Your task to perform on an android device: Open ESPN.com Image 0: 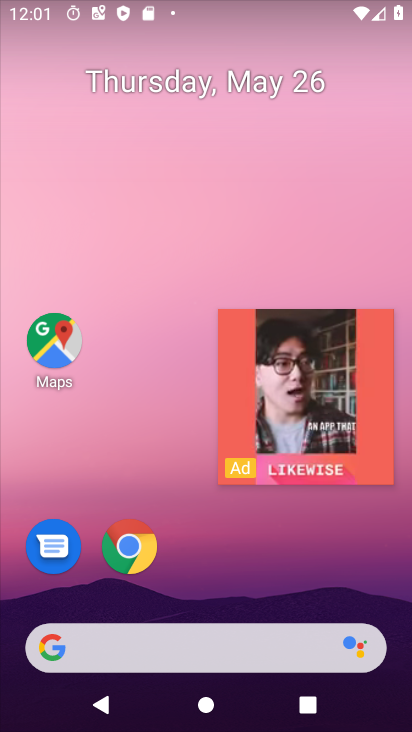
Step 0: click (133, 553)
Your task to perform on an android device: Open ESPN.com Image 1: 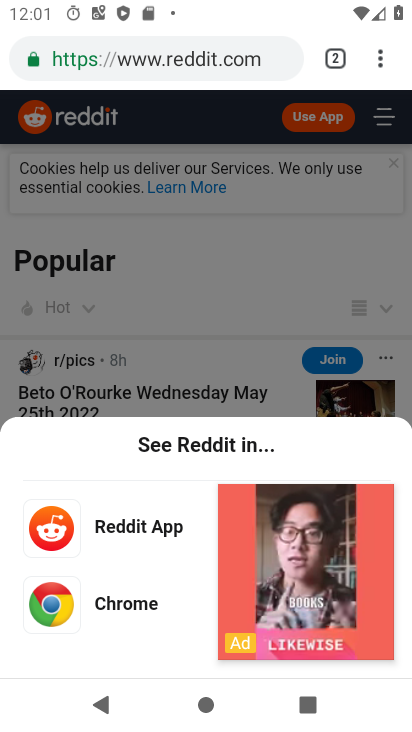
Step 1: click (176, 45)
Your task to perform on an android device: Open ESPN.com Image 2: 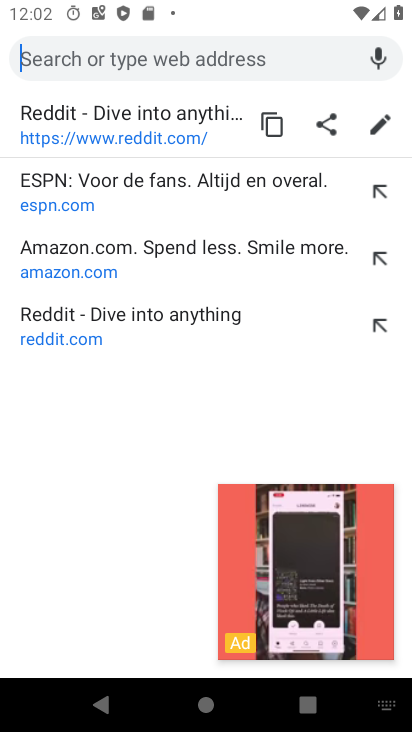
Step 2: type "ESPN.com"
Your task to perform on an android device: Open ESPN.com Image 3: 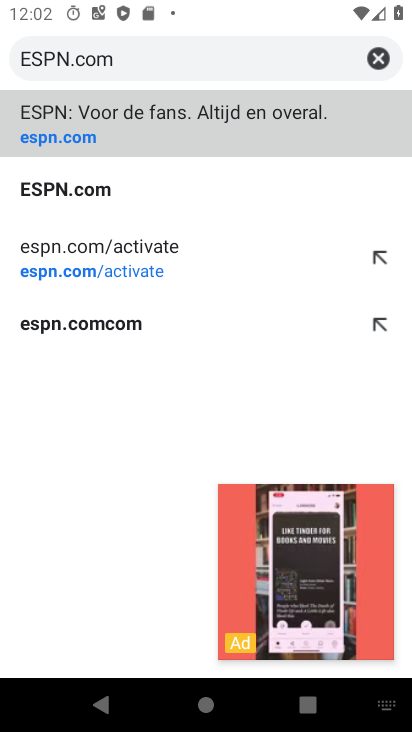
Step 3: click (54, 130)
Your task to perform on an android device: Open ESPN.com Image 4: 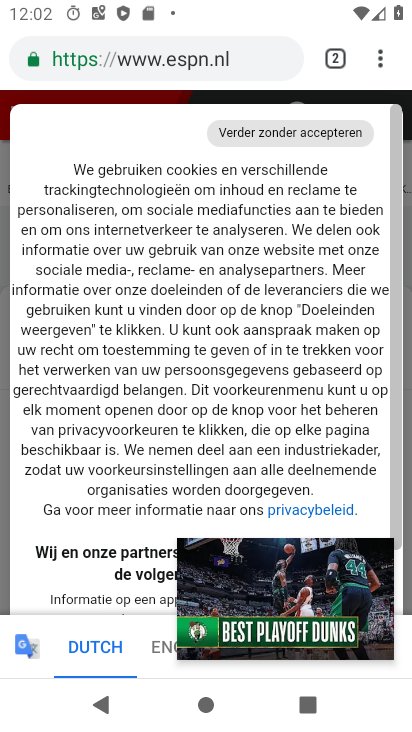
Step 4: task complete